Your task to perform on an android device: change alarm snooze length Image 0: 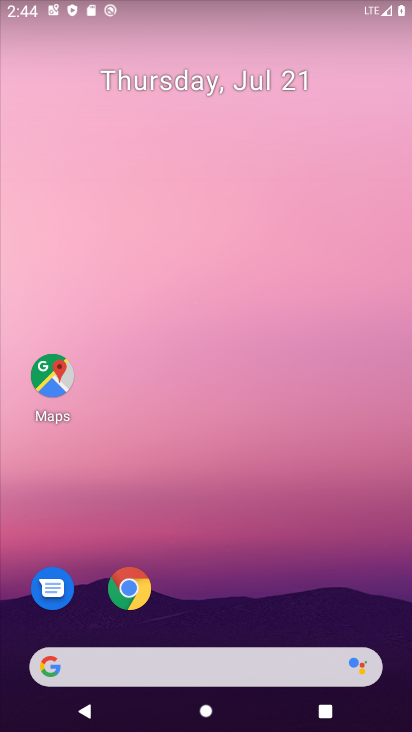
Step 0: drag from (213, 508) to (243, 178)
Your task to perform on an android device: change alarm snooze length Image 1: 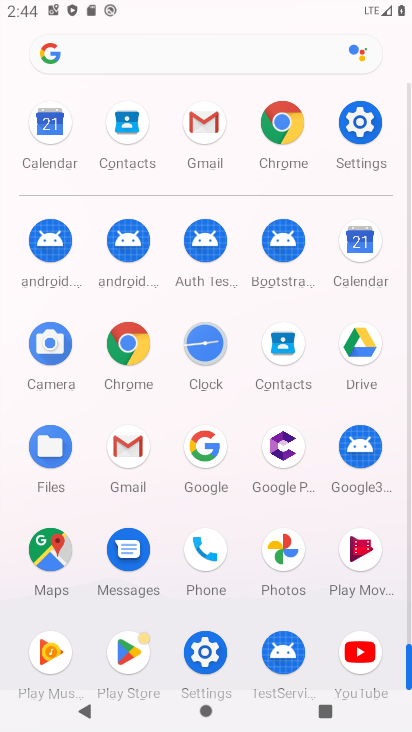
Step 1: click (366, 234)
Your task to perform on an android device: change alarm snooze length Image 2: 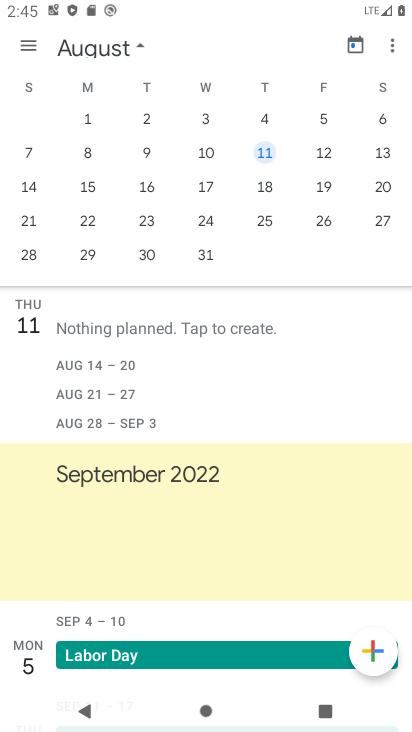
Step 2: click (116, 53)
Your task to perform on an android device: change alarm snooze length Image 3: 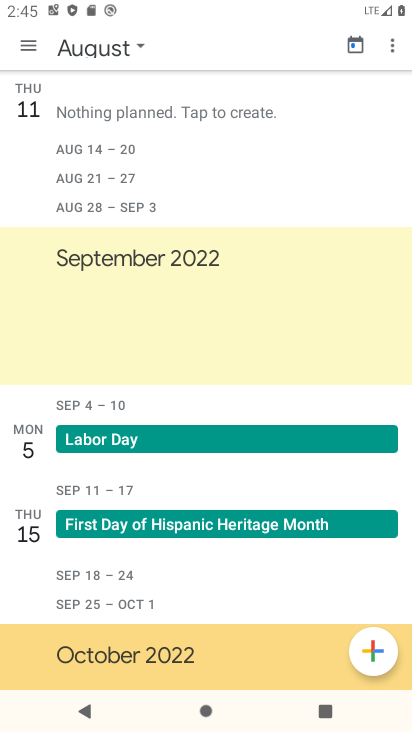
Step 3: click (162, 53)
Your task to perform on an android device: change alarm snooze length Image 4: 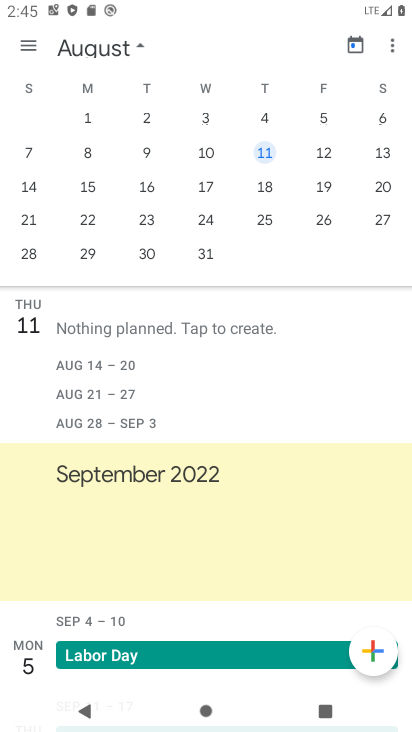
Step 4: drag from (77, 228) to (411, 216)
Your task to perform on an android device: change alarm snooze length Image 5: 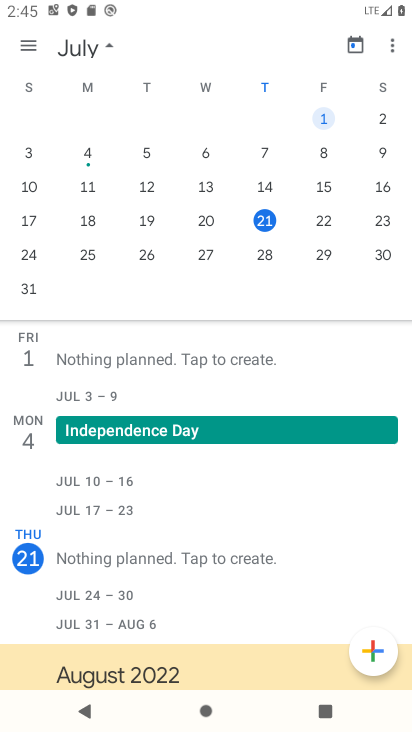
Step 5: click (260, 225)
Your task to perform on an android device: change alarm snooze length Image 6: 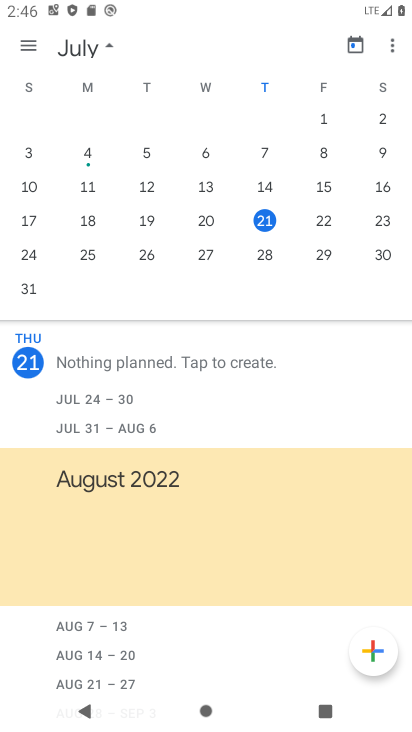
Step 6: press home button
Your task to perform on an android device: change alarm snooze length Image 7: 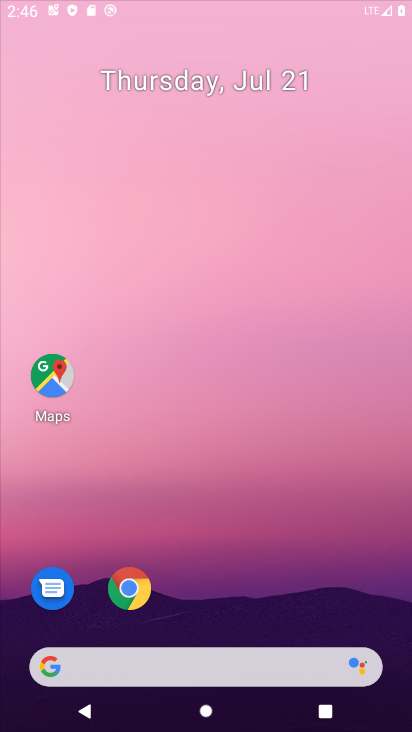
Step 7: drag from (212, 645) to (323, 32)
Your task to perform on an android device: change alarm snooze length Image 8: 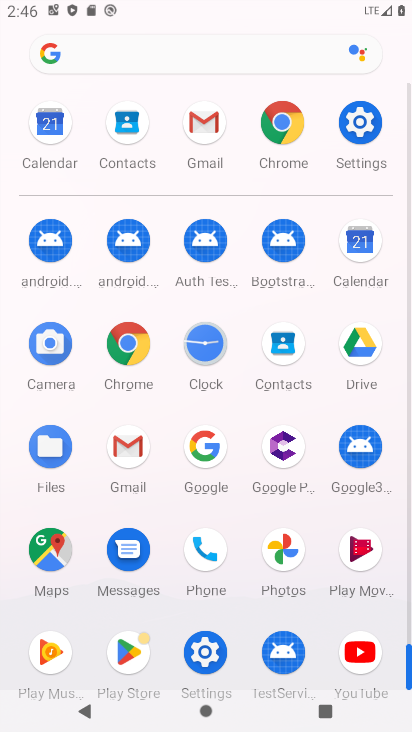
Step 8: click (207, 345)
Your task to perform on an android device: change alarm snooze length Image 9: 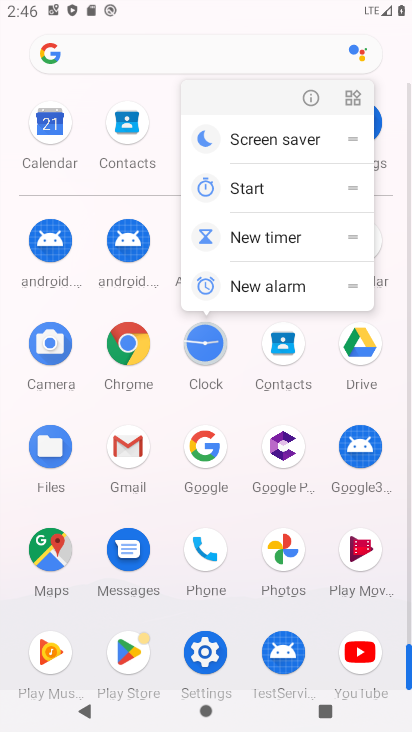
Step 9: click (307, 113)
Your task to perform on an android device: change alarm snooze length Image 10: 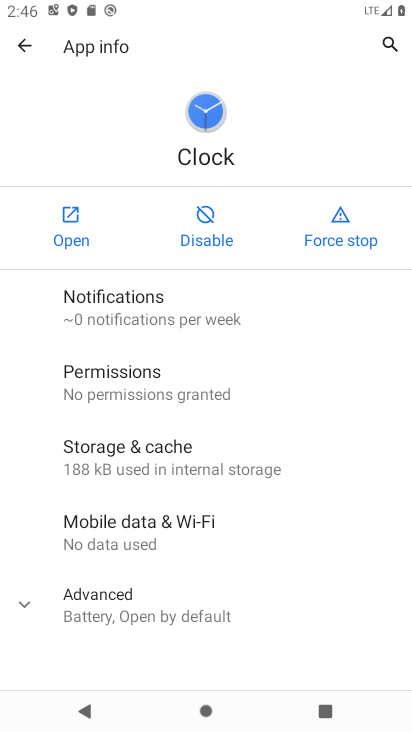
Step 10: click (64, 228)
Your task to perform on an android device: change alarm snooze length Image 11: 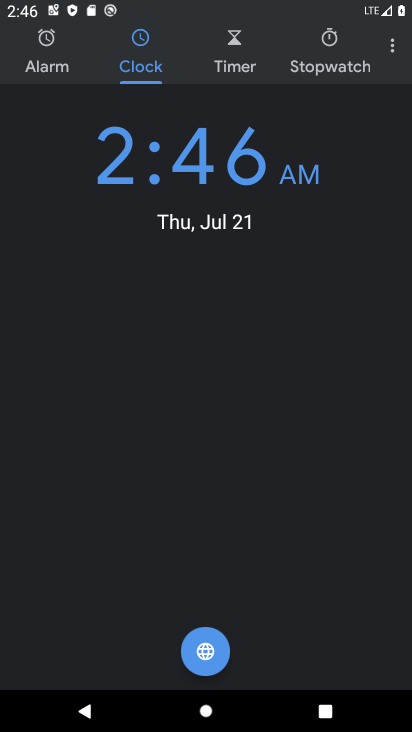
Step 11: click (390, 45)
Your task to perform on an android device: change alarm snooze length Image 12: 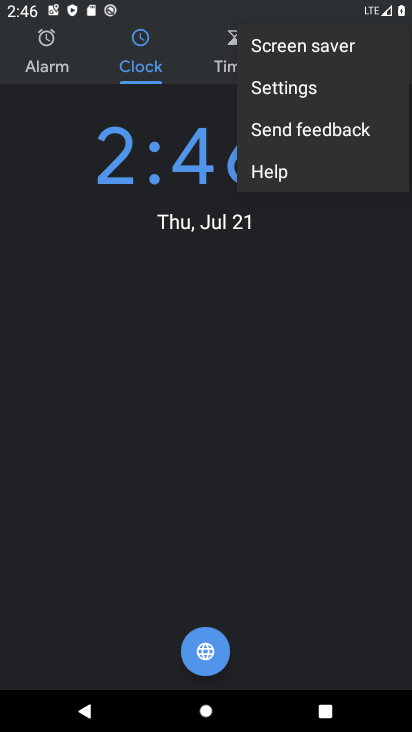
Step 12: click (297, 98)
Your task to perform on an android device: change alarm snooze length Image 13: 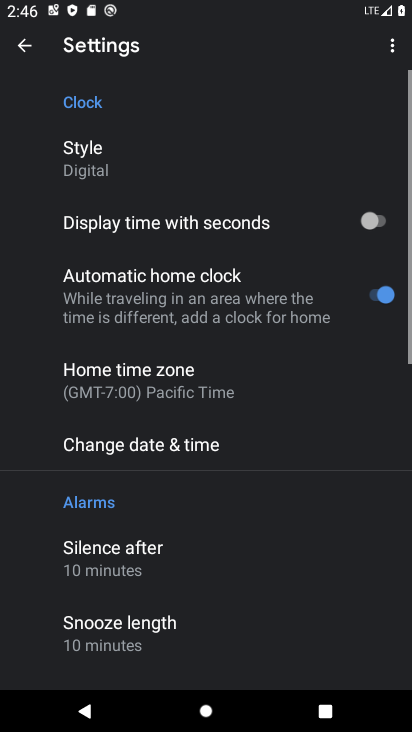
Step 13: drag from (139, 557) to (179, 202)
Your task to perform on an android device: change alarm snooze length Image 14: 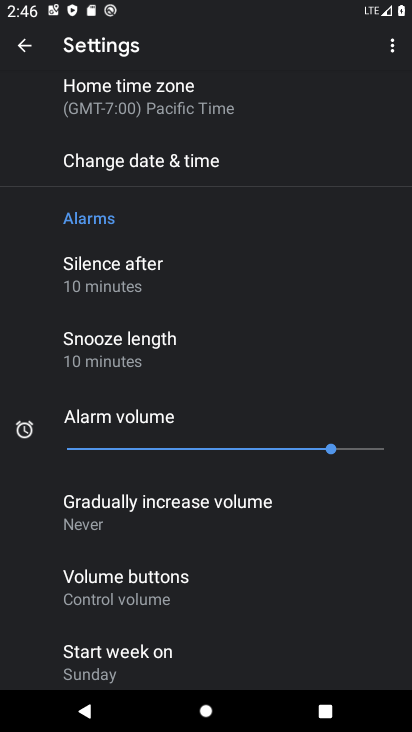
Step 14: drag from (208, 455) to (235, 236)
Your task to perform on an android device: change alarm snooze length Image 15: 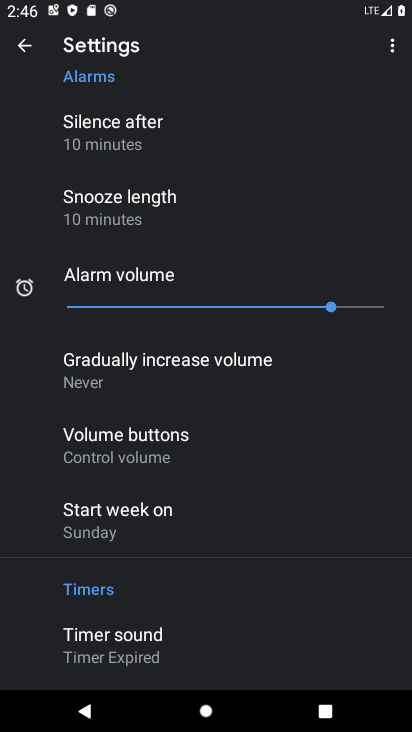
Step 15: drag from (222, 152) to (208, 669)
Your task to perform on an android device: change alarm snooze length Image 16: 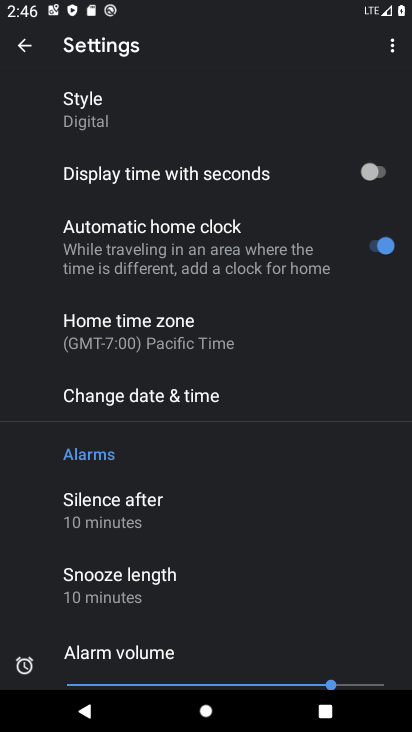
Step 16: drag from (237, 243) to (271, 731)
Your task to perform on an android device: change alarm snooze length Image 17: 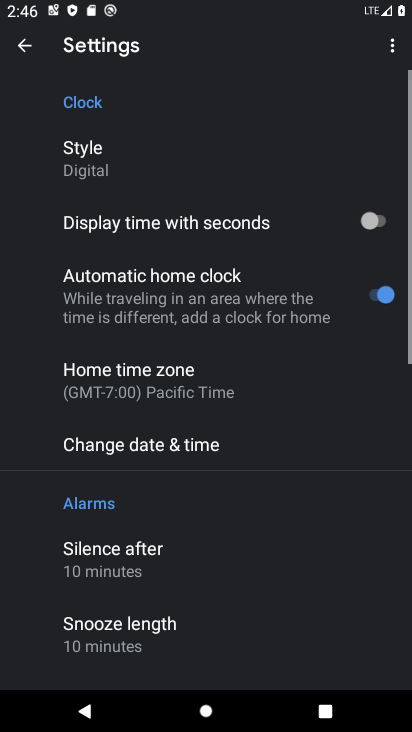
Step 17: drag from (208, 516) to (216, 359)
Your task to perform on an android device: change alarm snooze length Image 18: 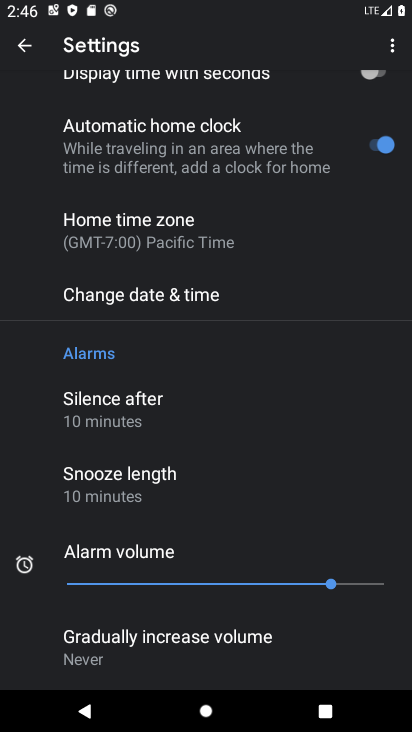
Step 18: click (154, 501)
Your task to perform on an android device: change alarm snooze length Image 19: 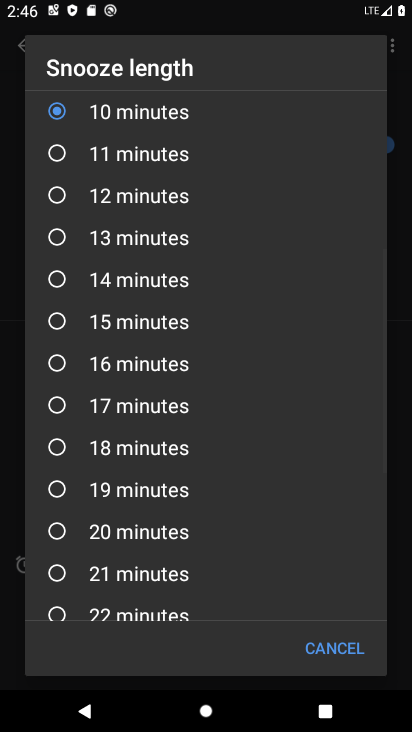
Step 19: drag from (132, 213) to (201, 704)
Your task to perform on an android device: change alarm snooze length Image 20: 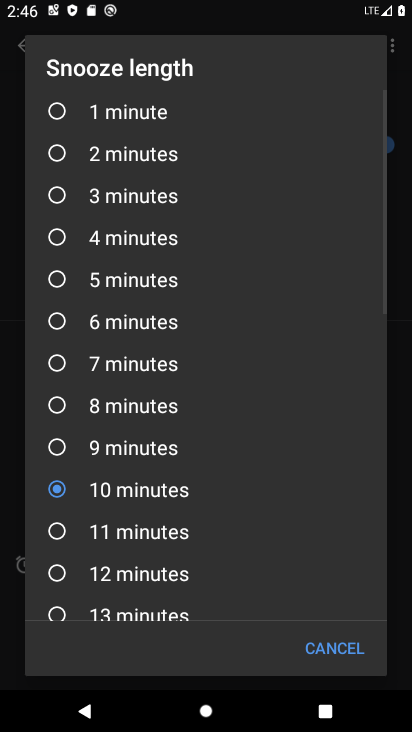
Step 20: click (105, 118)
Your task to perform on an android device: change alarm snooze length Image 21: 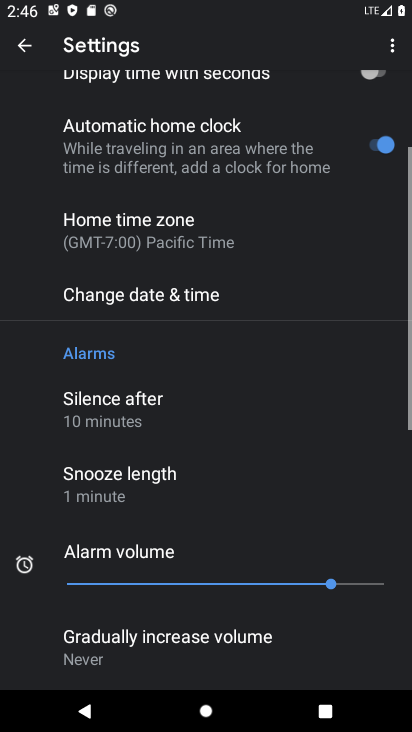
Step 21: task complete